Your task to perform on an android device: Go to location settings Image 0: 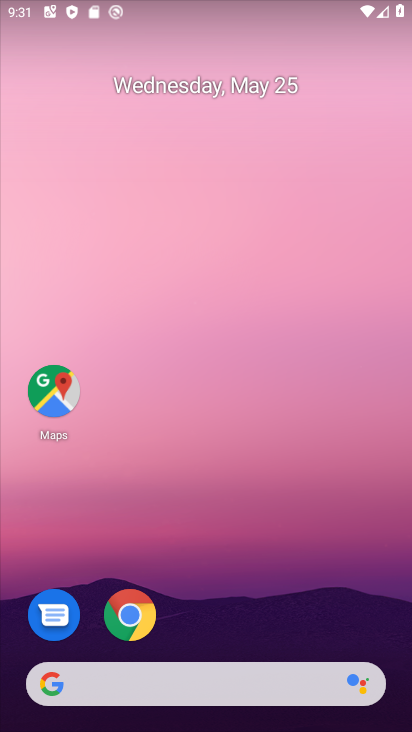
Step 0: drag from (226, 599) to (274, 25)
Your task to perform on an android device: Go to location settings Image 1: 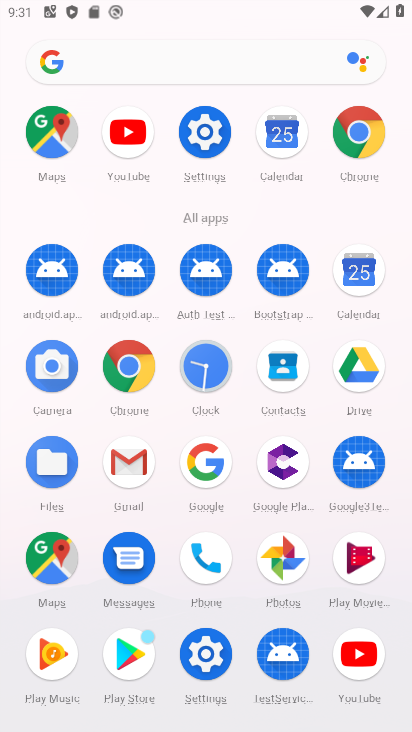
Step 1: click (215, 115)
Your task to perform on an android device: Go to location settings Image 2: 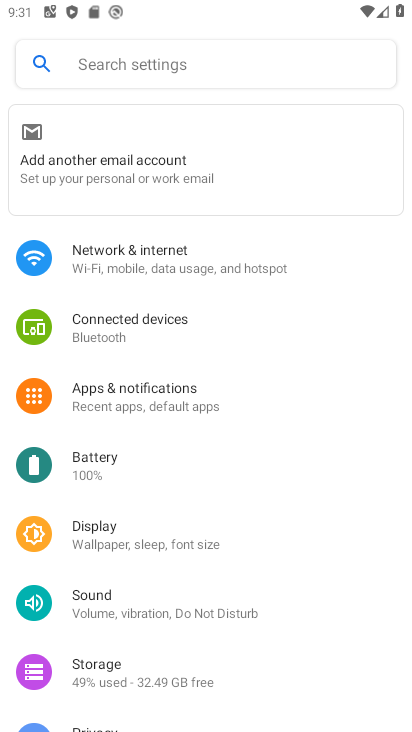
Step 2: drag from (209, 571) to (232, 207)
Your task to perform on an android device: Go to location settings Image 3: 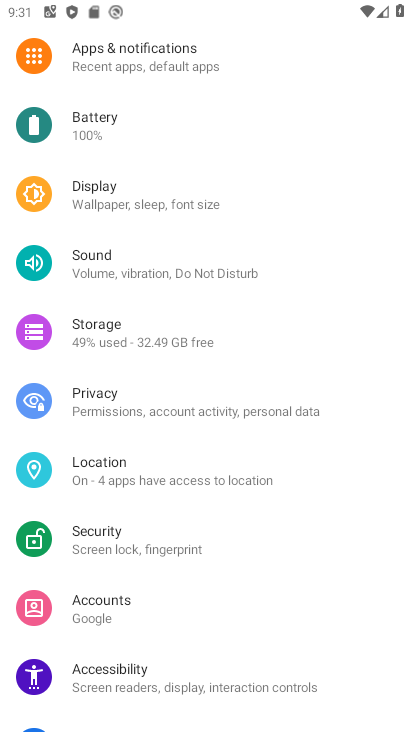
Step 3: click (187, 459)
Your task to perform on an android device: Go to location settings Image 4: 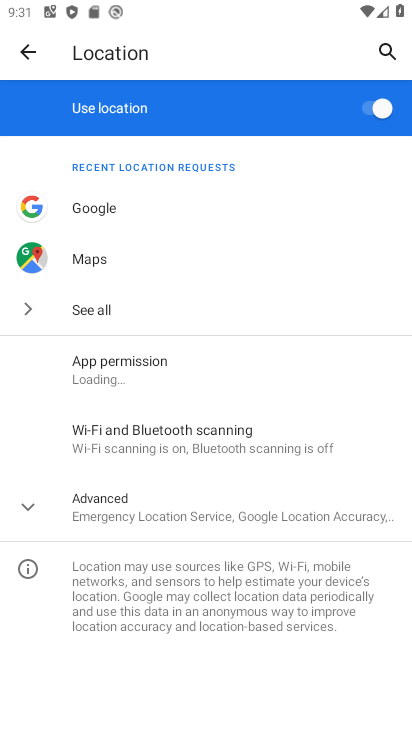
Step 4: task complete